Your task to perform on an android device: turn on the 24-hour format for clock Image 0: 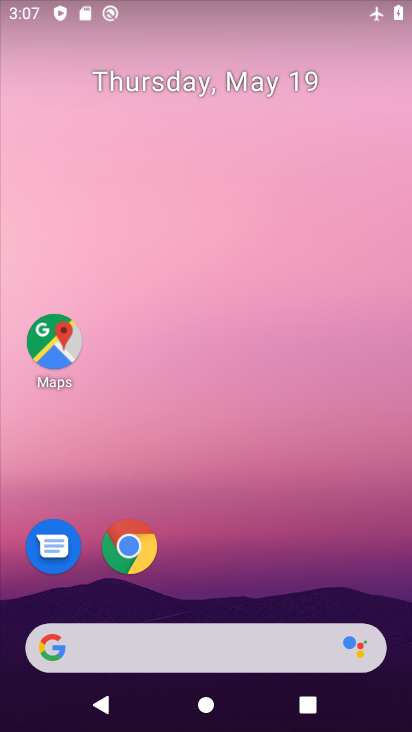
Step 0: drag from (254, 600) to (264, 41)
Your task to perform on an android device: turn on the 24-hour format for clock Image 1: 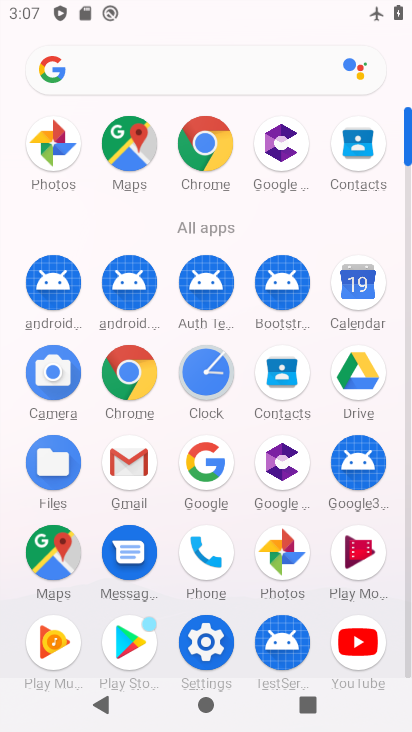
Step 1: click (203, 627)
Your task to perform on an android device: turn on the 24-hour format for clock Image 2: 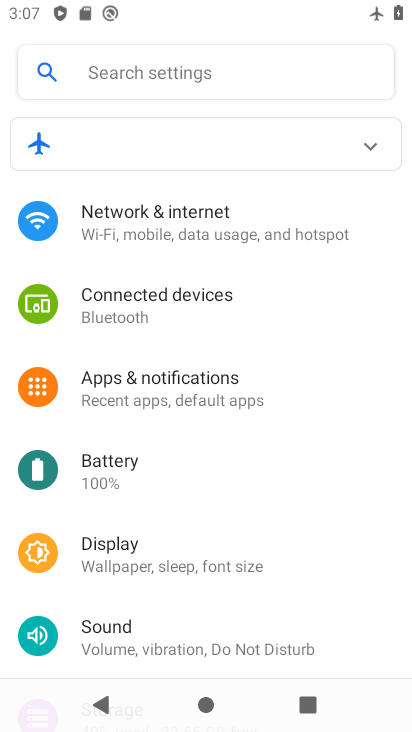
Step 2: press home button
Your task to perform on an android device: turn on the 24-hour format for clock Image 3: 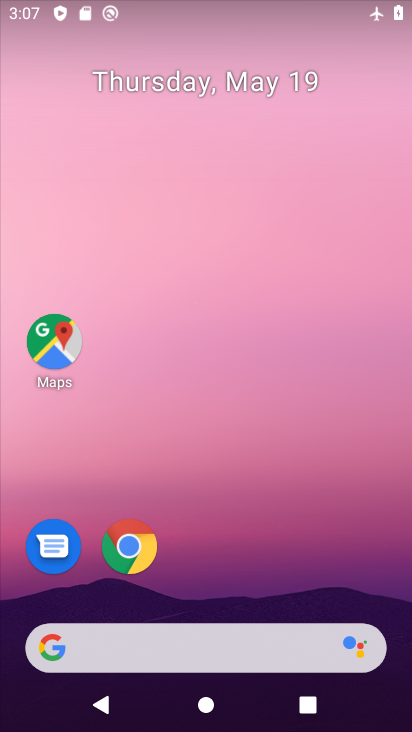
Step 3: drag from (302, 583) to (193, 220)
Your task to perform on an android device: turn on the 24-hour format for clock Image 4: 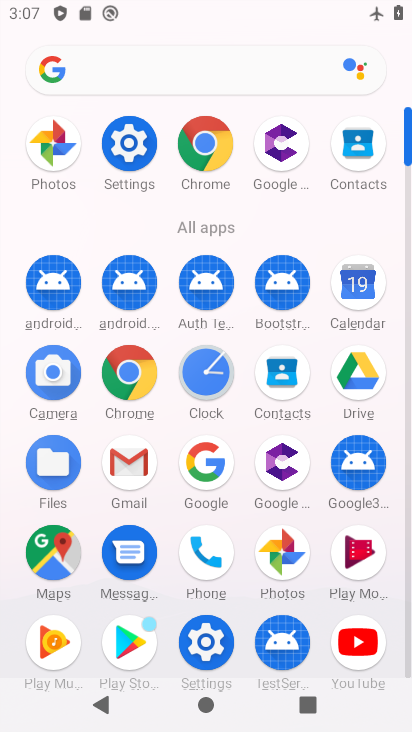
Step 4: click (213, 396)
Your task to perform on an android device: turn on the 24-hour format for clock Image 5: 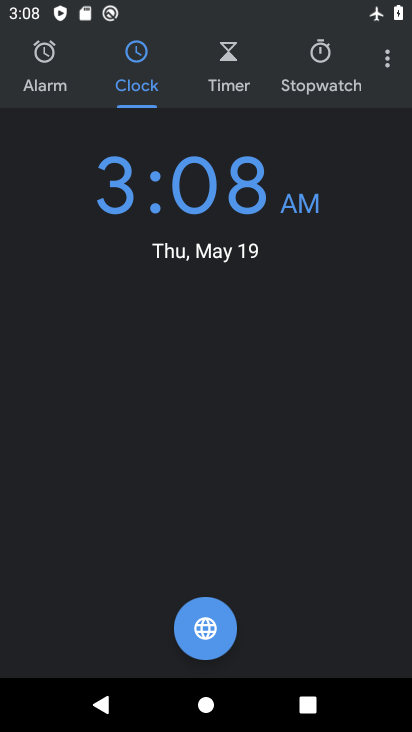
Step 5: click (386, 67)
Your task to perform on an android device: turn on the 24-hour format for clock Image 6: 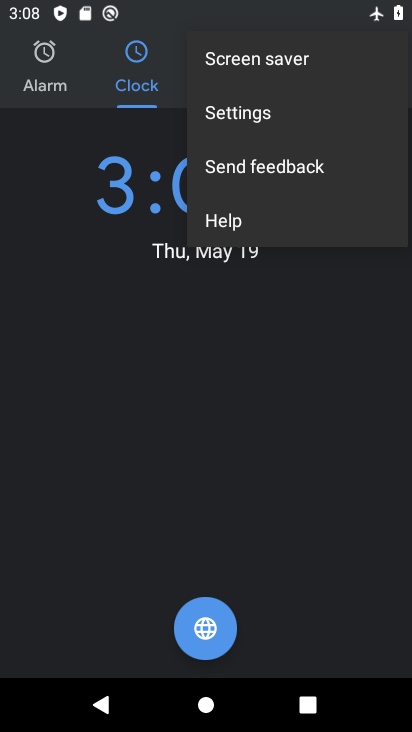
Step 6: click (352, 113)
Your task to perform on an android device: turn on the 24-hour format for clock Image 7: 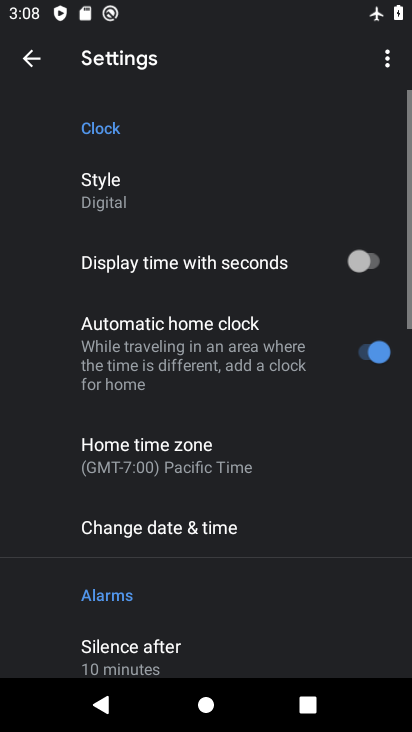
Step 7: click (294, 537)
Your task to perform on an android device: turn on the 24-hour format for clock Image 8: 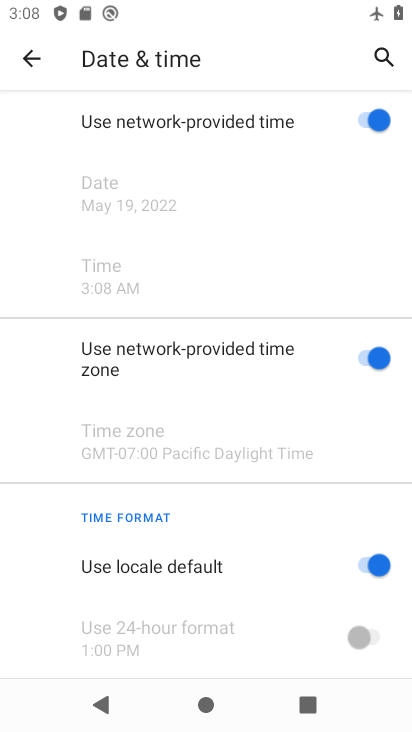
Step 8: click (373, 572)
Your task to perform on an android device: turn on the 24-hour format for clock Image 9: 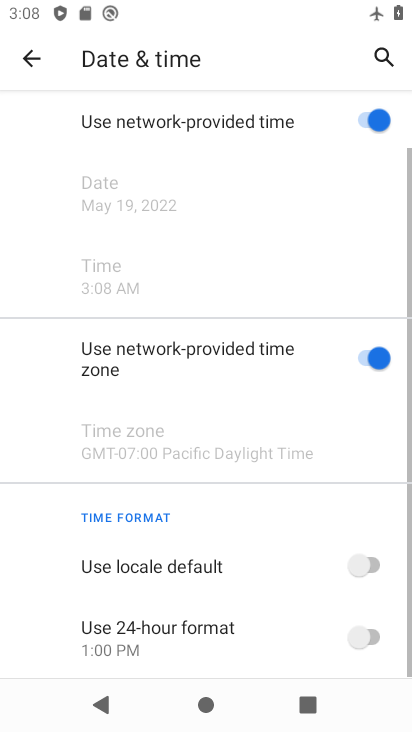
Step 9: click (364, 637)
Your task to perform on an android device: turn on the 24-hour format for clock Image 10: 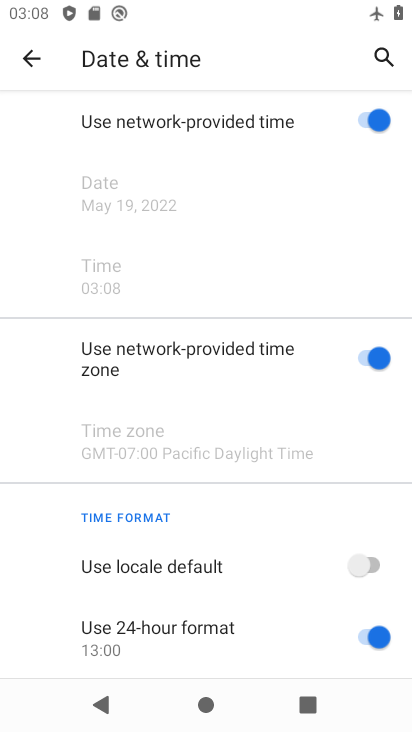
Step 10: task complete